Your task to perform on an android device: see sites visited before in the chrome app Image 0: 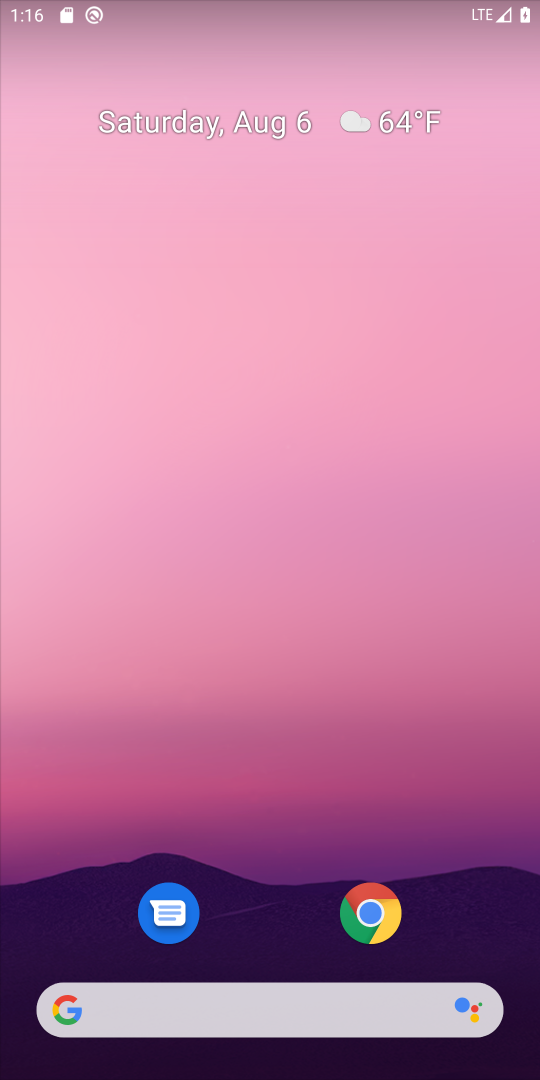
Step 0: press home button
Your task to perform on an android device: see sites visited before in the chrome app Image 1: 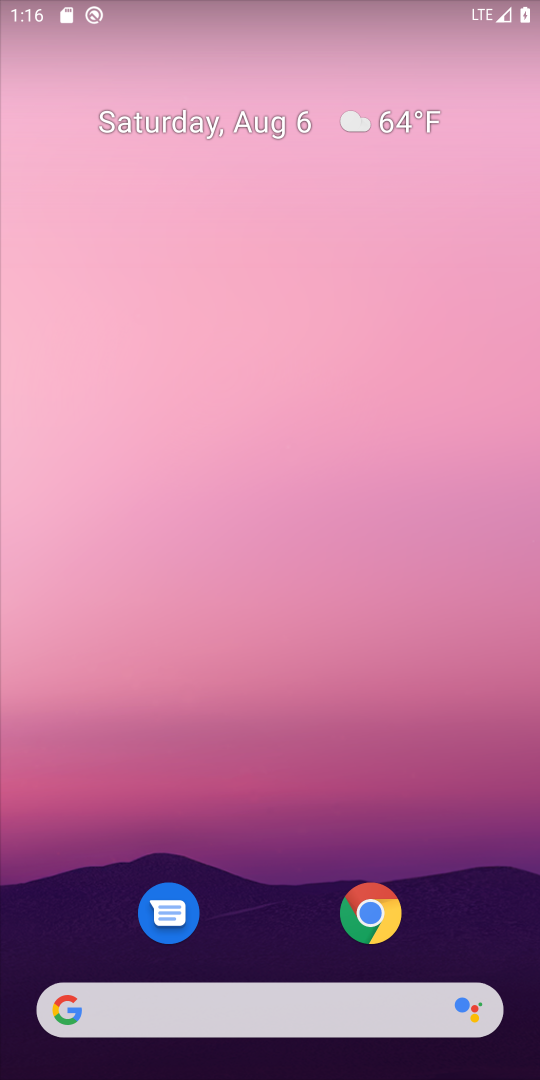
Step 1: drag from (284, 868) to (274, 272)
Your task to perform on an android device: see sites visited before in the chrome app Image 2: 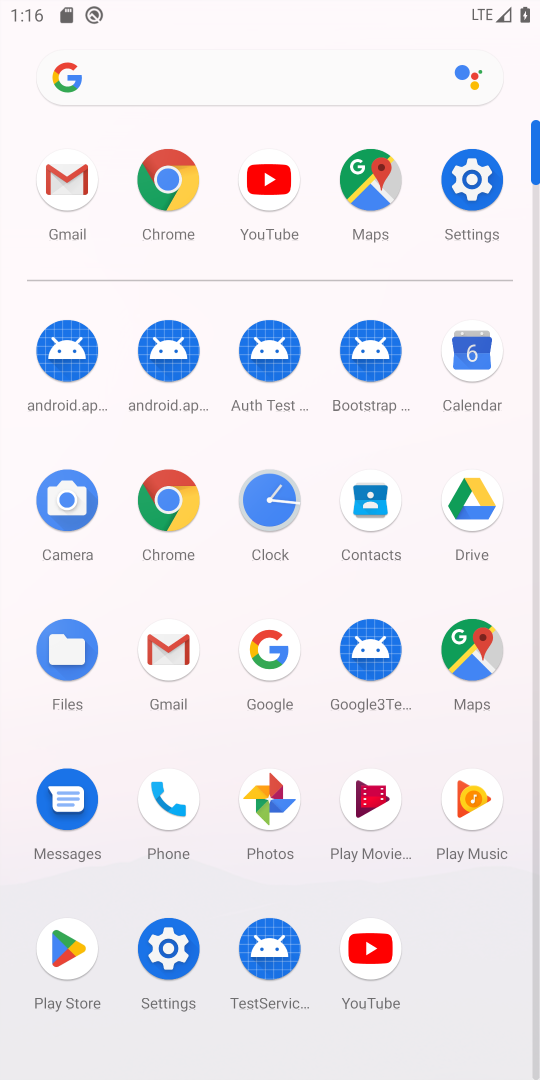
Step 2: click (172, 504)
Your task to perform on an android device: see sites visited before in the chrome app Image 3: 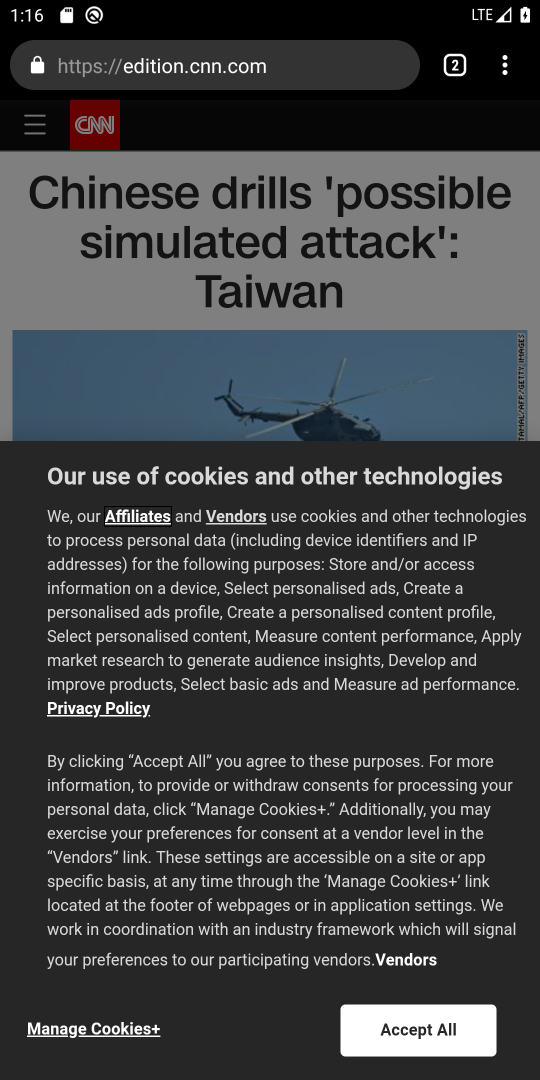
Step 3: click (505, 63)
Your task to perform on an android device: see sites visited before in the chrome app Image 4: 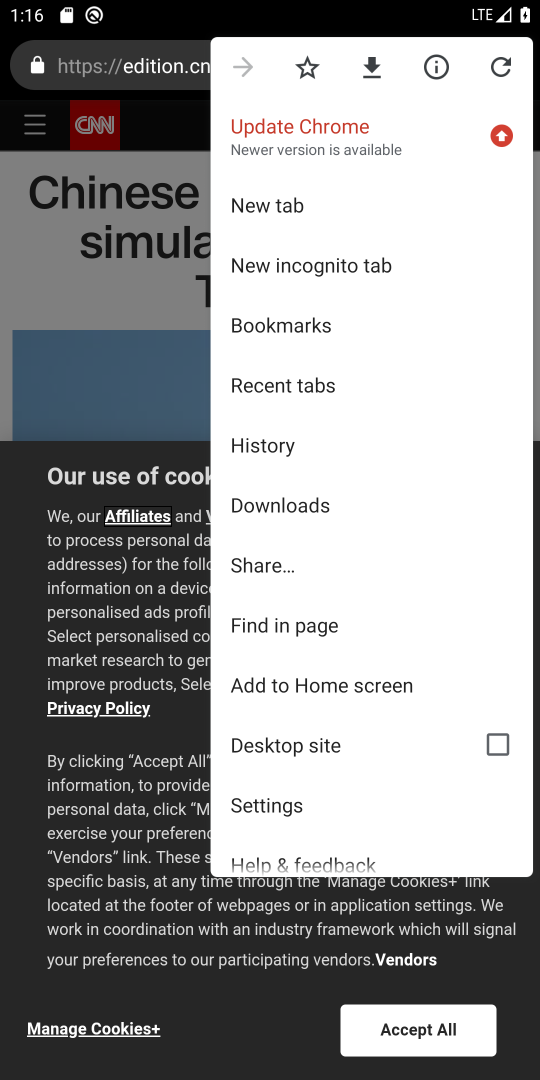
Step 4: click (310, 438)
Your task to perform on an android device: see sites visited before in the chrome app Image 5: 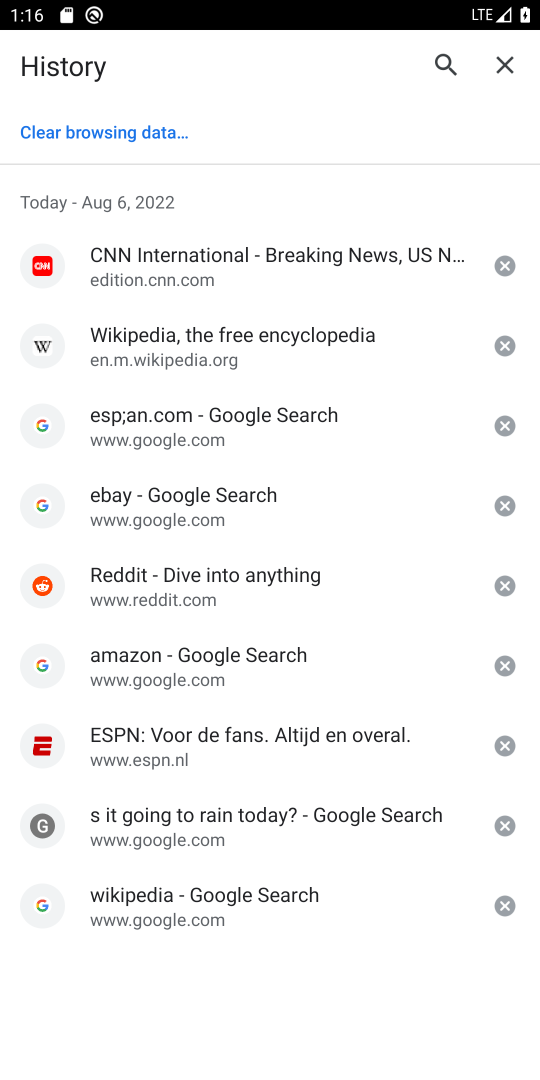
Step 5: task complete